Your task to perform on an android device: Turn on the flashlight Image 0: 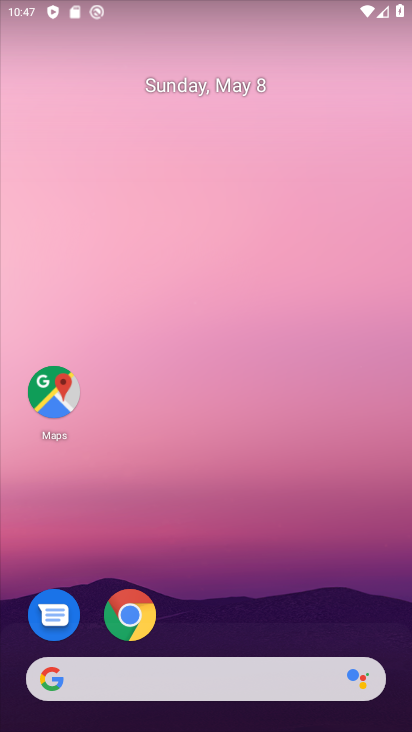
Step 0: drag from (240, 533) to (341, 41)
Your task to perform on an android device: Turn on the flashlight Image 1: 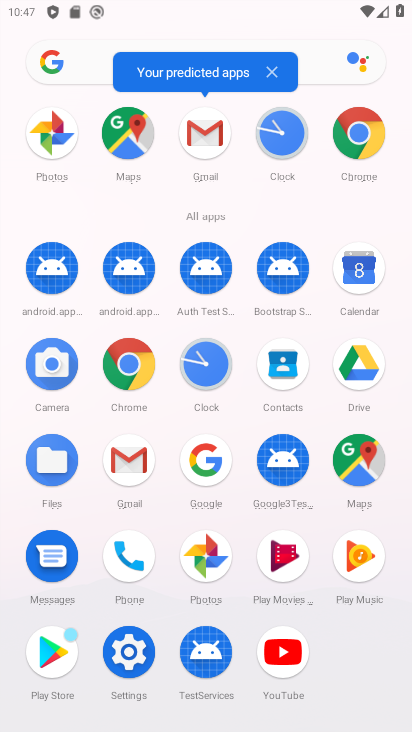
Step 1: click (127, 663)
Your task to perform on an android device: Turn on the flashlight Image 2: 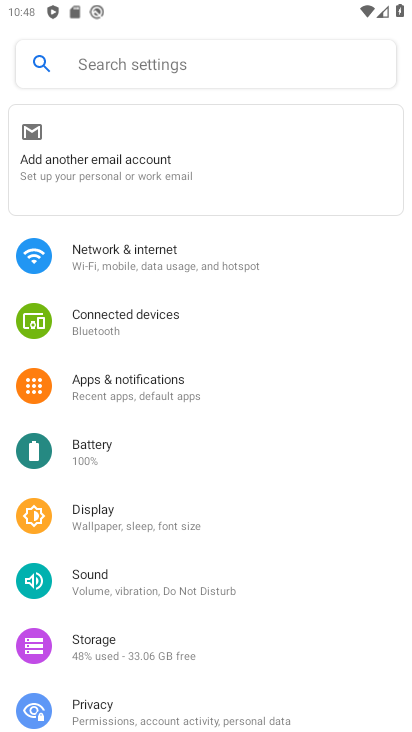
Step 2: click (102, 57)
Your task to perform on an android device: Turn on the flashlight Image 3: 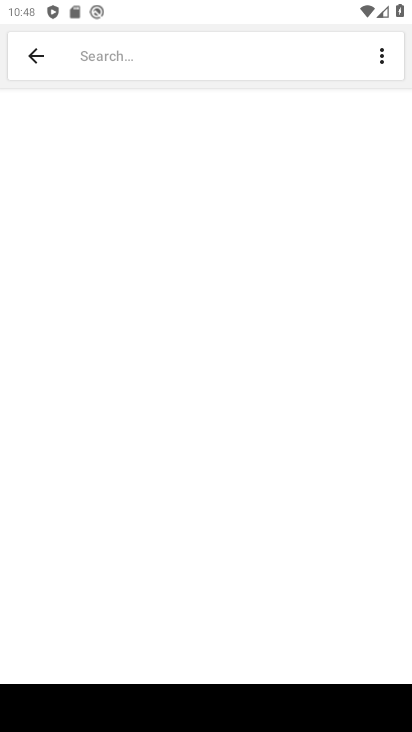
Step 3: type "flashlight"
Your task to perform on an android device: Turn on the flashlight Image 4: 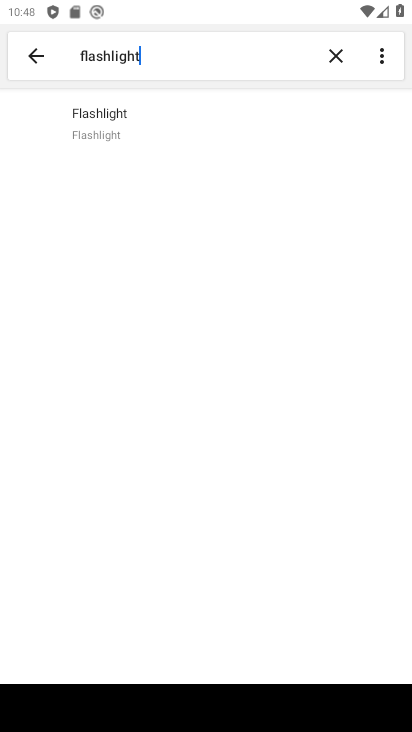
Step 4: click (49, 95)
Your task to perform on an android device: Turn on the flashlight Image 5: 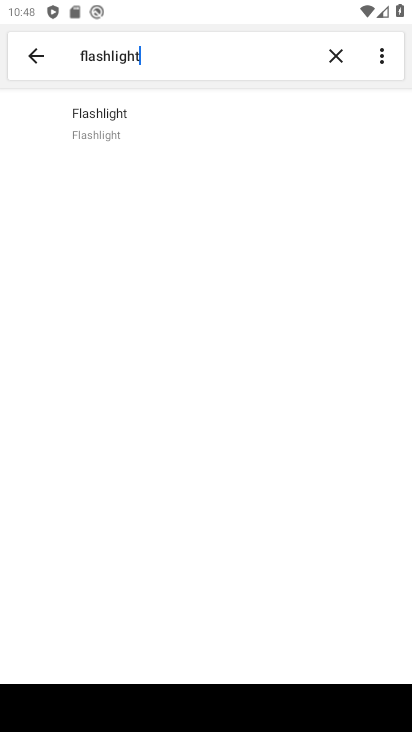
Step 5: click (92, 120)
Your task to perform on an android device: Turn on the flashlight Image 6: 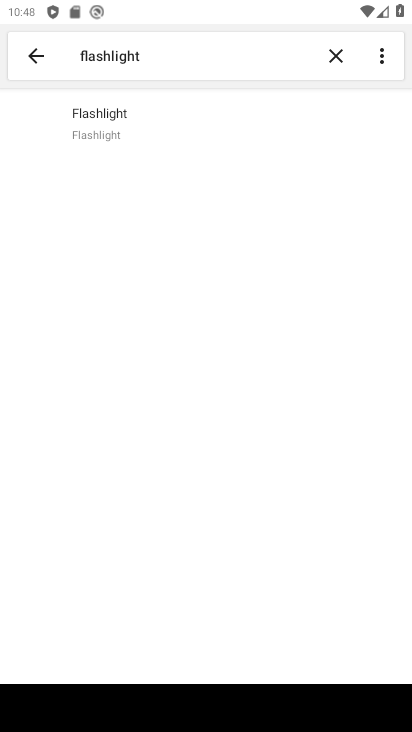
Step 6: task complete